Your task to perform on an android device: open app "Spotify: Music and Podcasts" (install if not already installed) and go to login screen Image 0: 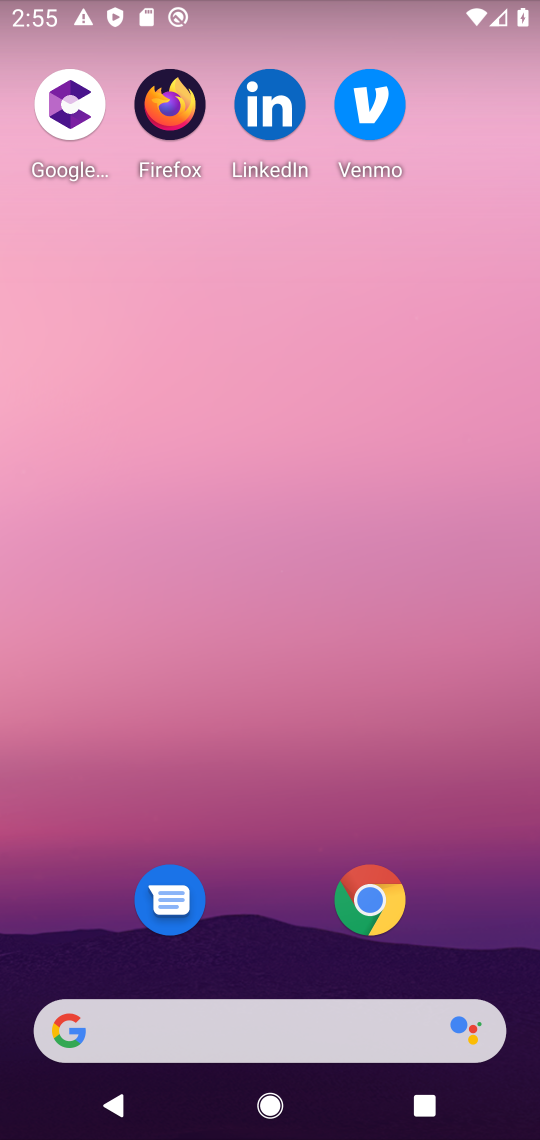
Step 0: drag from (305, 975) to (314, 108)
Your task to perform on an android device: open app "Spotify: Music and Podcasts" (install if not already installed) and go to login screen Image 1: 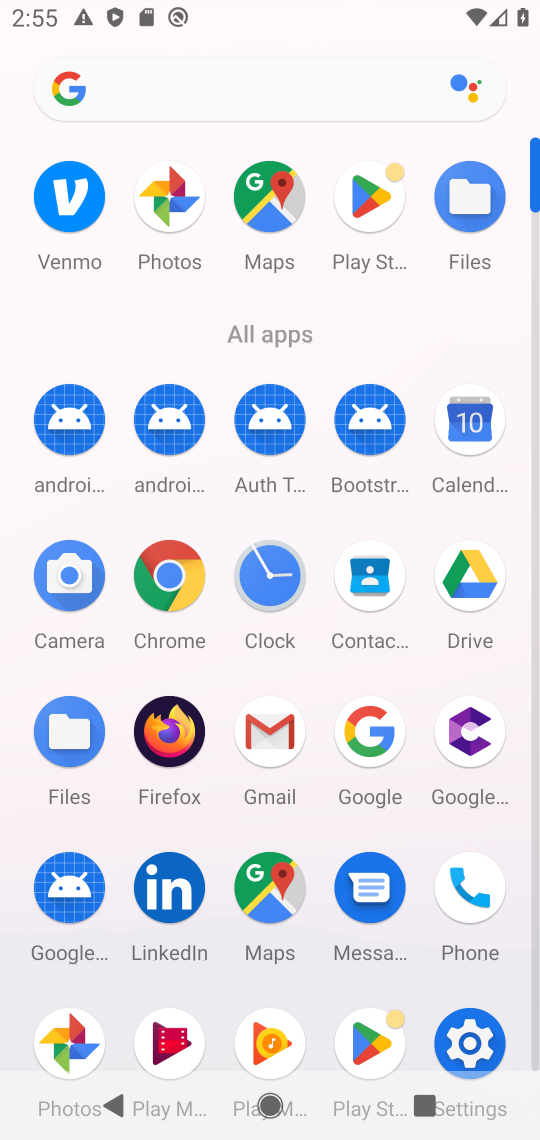
Step 1: click (352, 247)
Your task to perform on an android device: open app "Spotify: Music and Podcasts" (install if not already installed) and go to login screen Image 2: 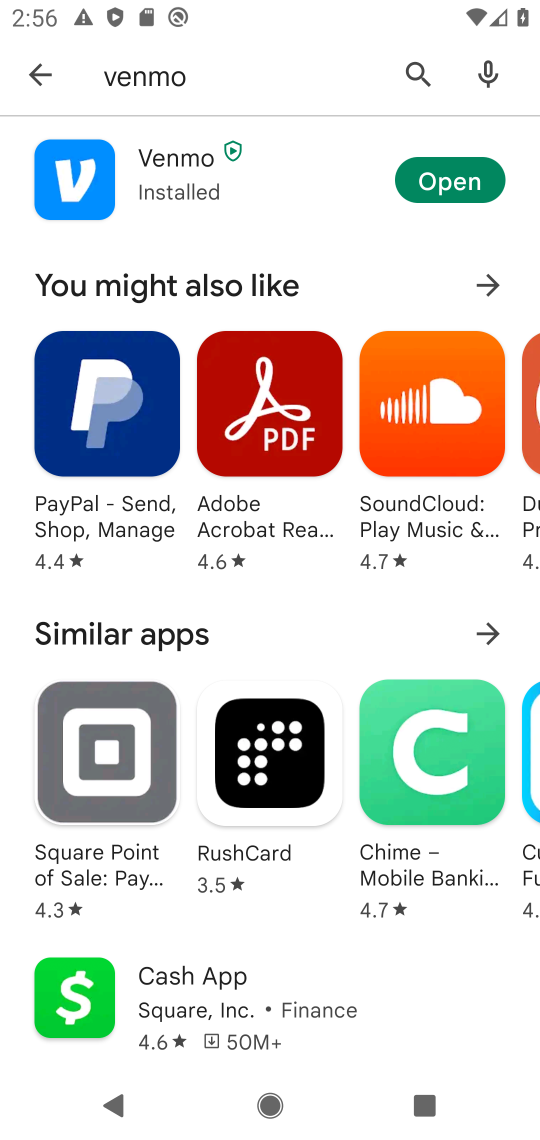
Step 2: click (411, 93)
Your task to perform on an android device: open app "Spotify: Music and Podcasts" (install if not already installed) and go to login screen Image 3: 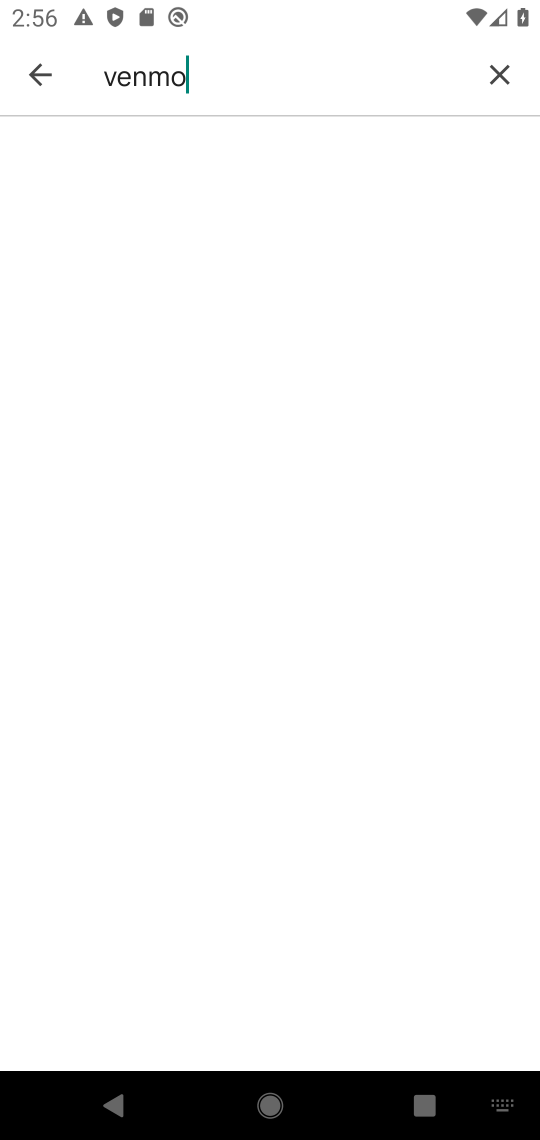
Step 3: click (478, 80)
Your task to perform on an android device: open app "Spotify: Music and Podcasts" (install if not already installed) and go to login screen Image 4: 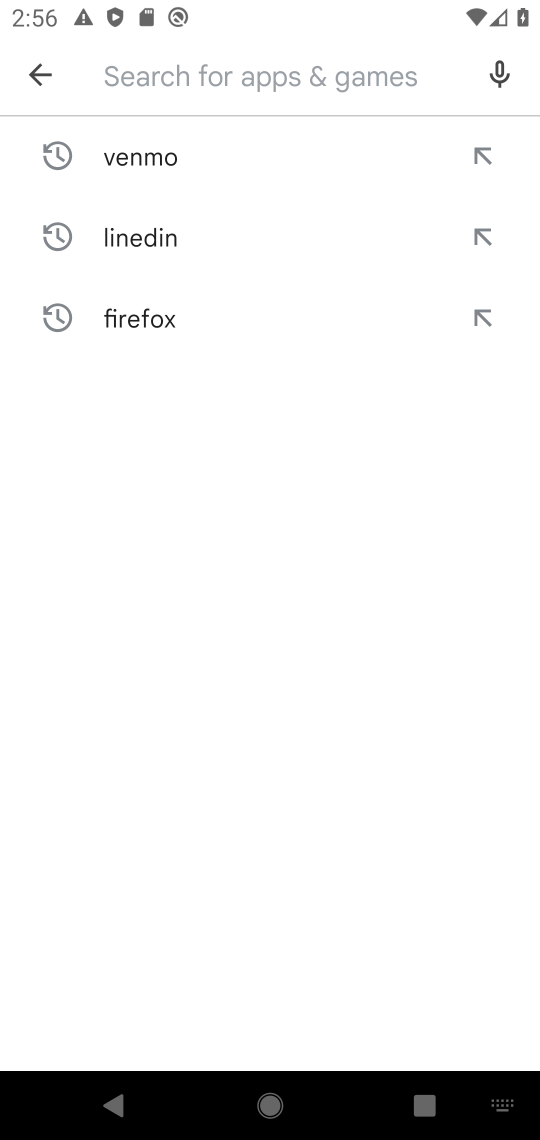
Step 4: type "spotify"
Your task to perform on an android device: open app "Spotify: Music and Podcasts" (install if not already installed) and go to login screen Image 5: 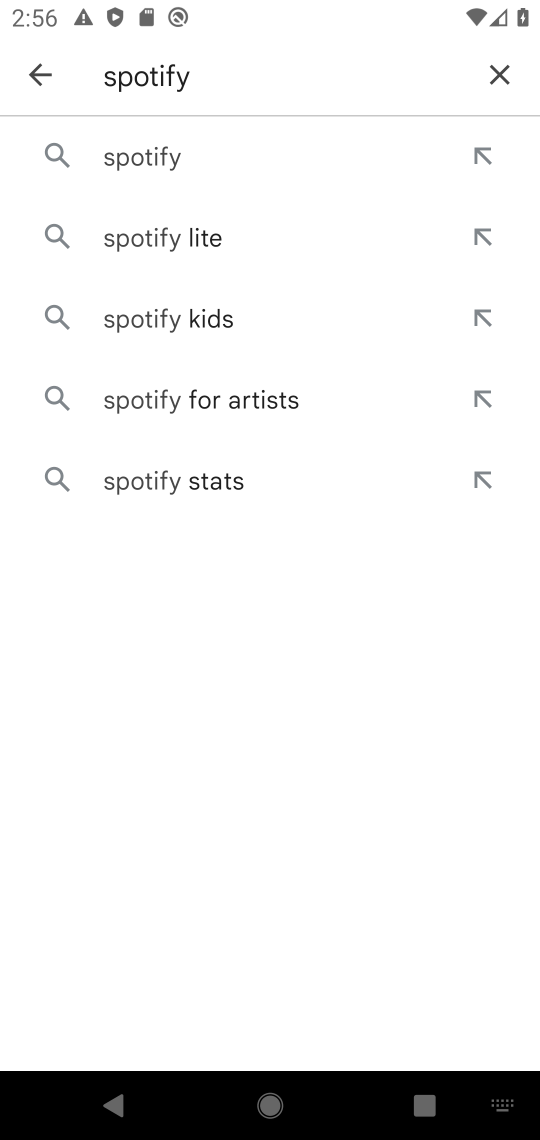
Step 5: click (229, 156)
Your task to perform on an android device: open app "Spotify: Music and Podcasts" (install if not already installed) and go to login screen Image 6: 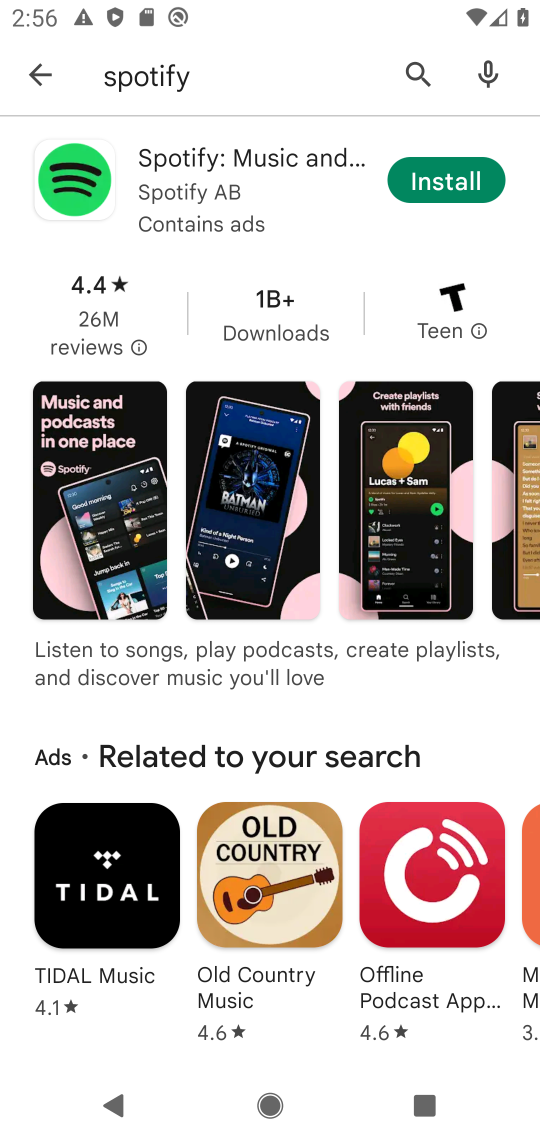
Step 6: click (449, 183)
Your task to perform on an android device: open app "Spotify: Music and Podcasts" (install if not already installed) and go to login screen Image 7: 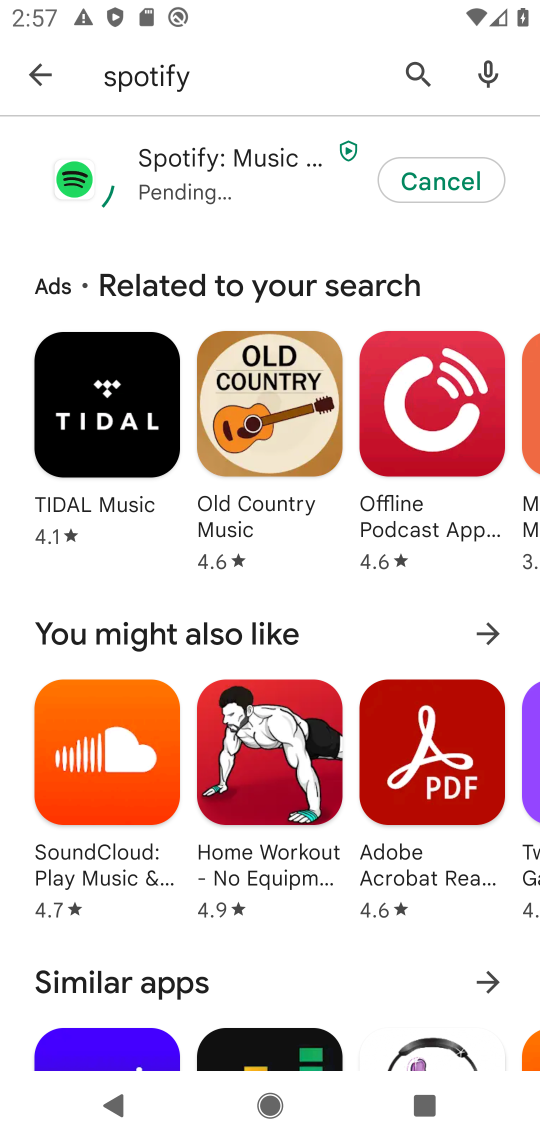
Step 7: task complete